Your task to perform on an android device: Toggle the flashlight Image 0: 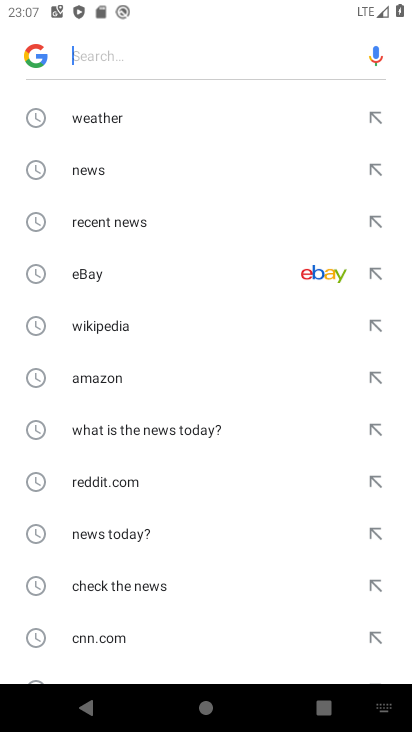
Step 0: press back button
Your task to perform on an android device: Toggle the flashlight Image 1: 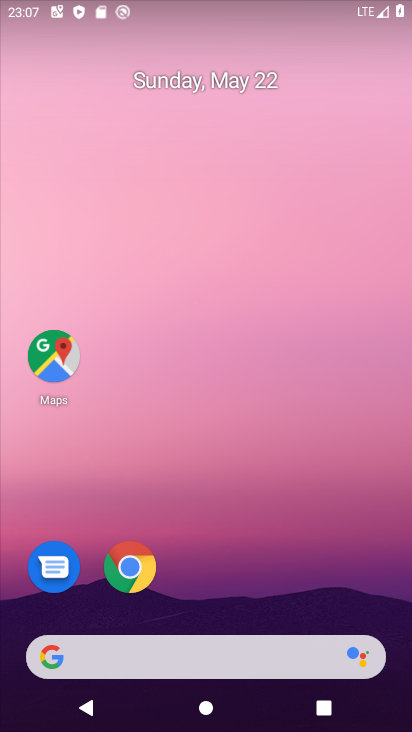
Step 1: drag from (205, 568) to (213, 13)
Your task to perform on an android device: Toggle the flashlight Image 2: 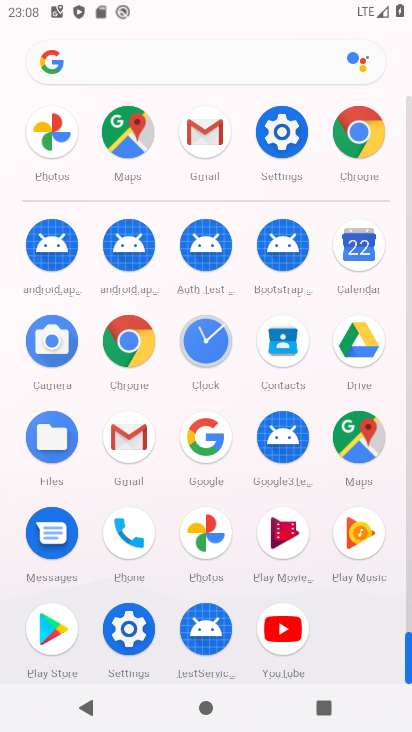
Step 2: click (126, 629)
Your task to perform on an android device: Toggle the flashlight Image 3: 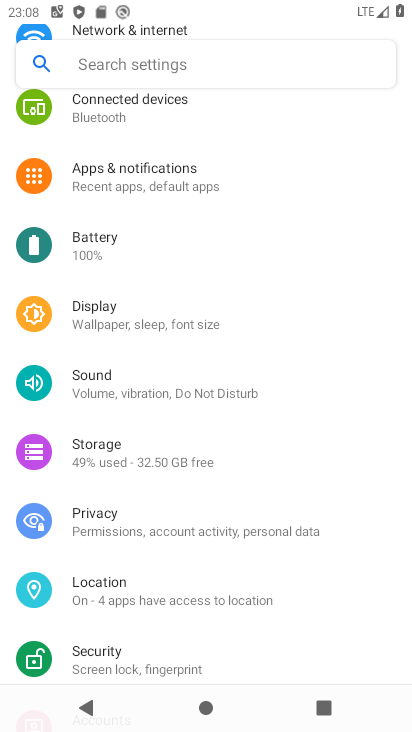
Step 3: drag from (272, 219) to (257, 609)
Your task to perform on an android device: Toggle the flashlight Image 4: 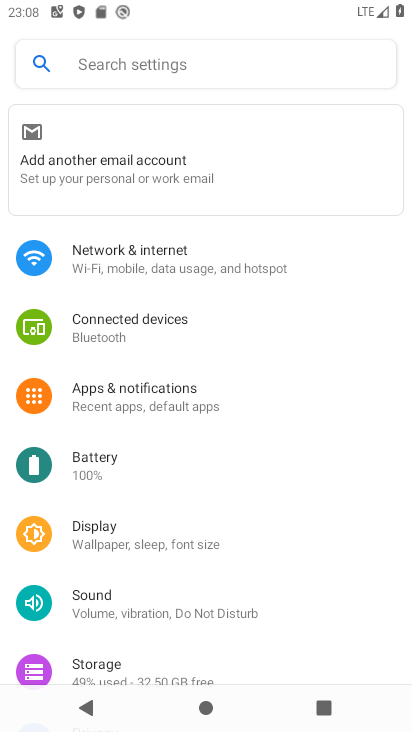
Step 4: drag from (315, 622) to (322, 276)
Your task to perform on an android device: Toggle the flashlight Image 5: 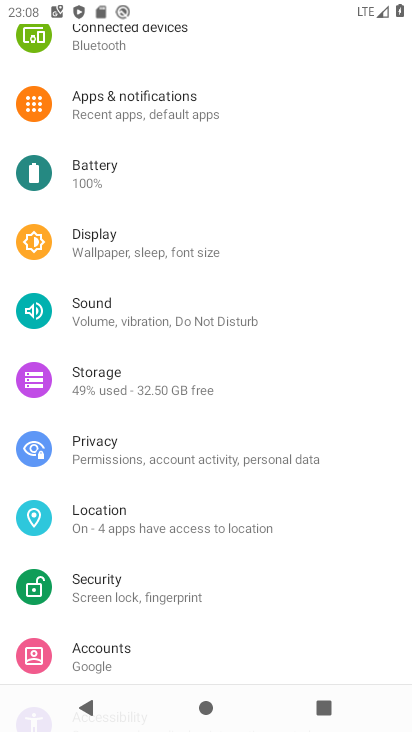
Step 5: drag from (281, 194) to (291, 549)
Your task to perform on an android device: Toggle the flashlight Image 6: 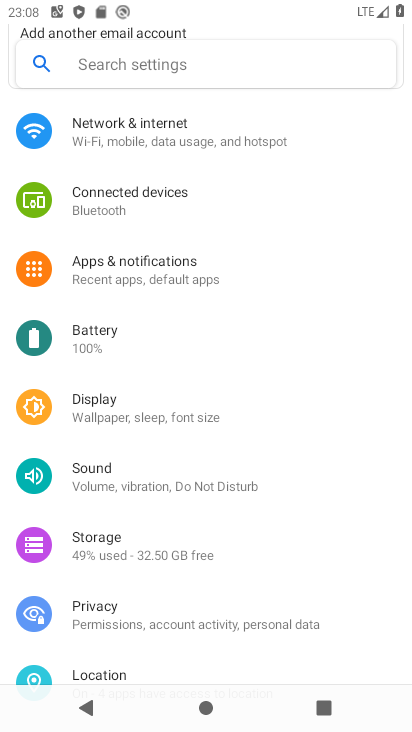
Step 6: click (269, 128)
Your task to perform on an android device: Toggle the flashlight Image 7: 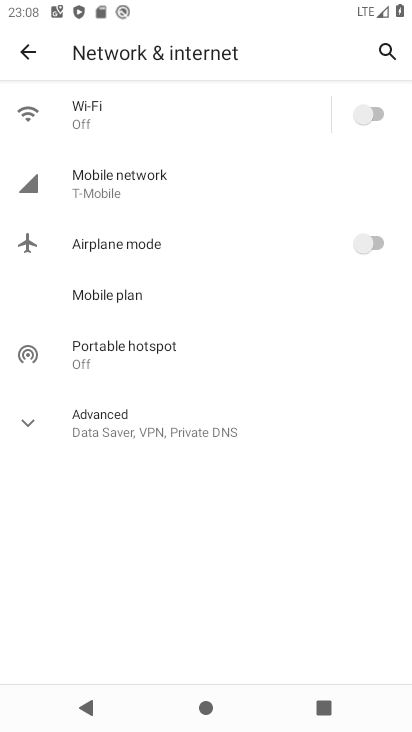
Step 7: click (41, 417)
Your task to perform on an android device: Toggle the flashlight Image 8: 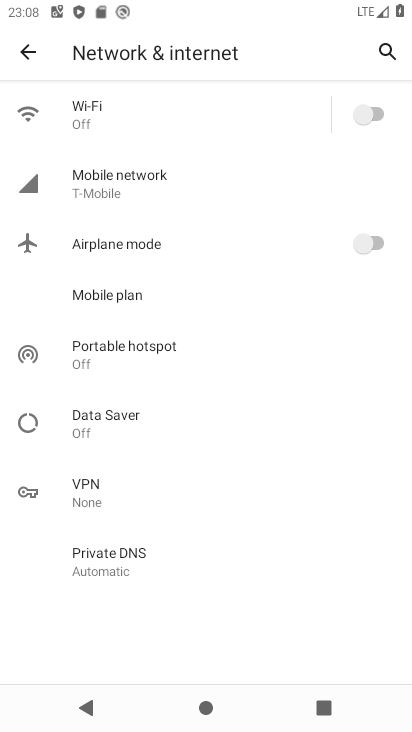
Step 8: task complete